Your task to perform on an android device: stop showing notifications on the lock screen Image 0: 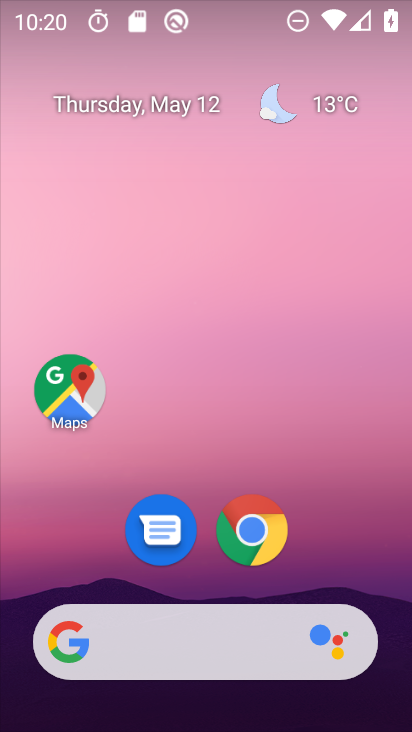
Step 0: drag from (315, 552) to (371, 32)
Your task to perform on an android device: stop showing notifications on the lock screen Image 1: 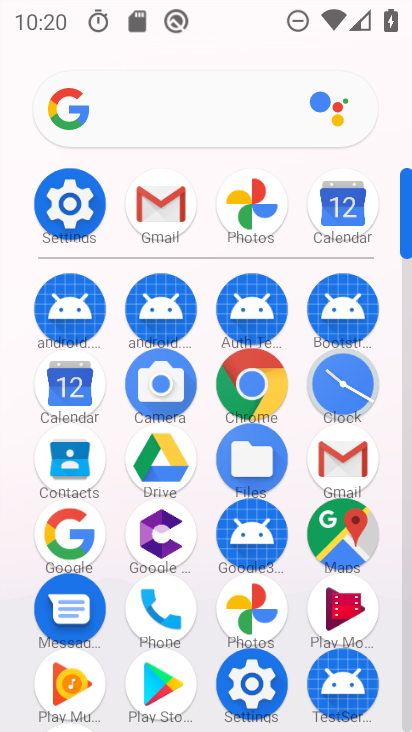
Step 1: click (70, 186)
Your task to perform on an android device: stop showing notifications on the lock screen Image 2: 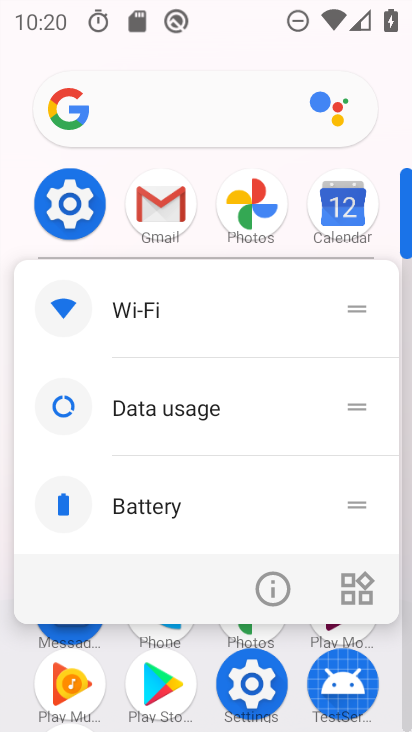
Step 2: click (70, 186)
Your task to perform on an android device: stop showing notifications on the lock screen Image 3: 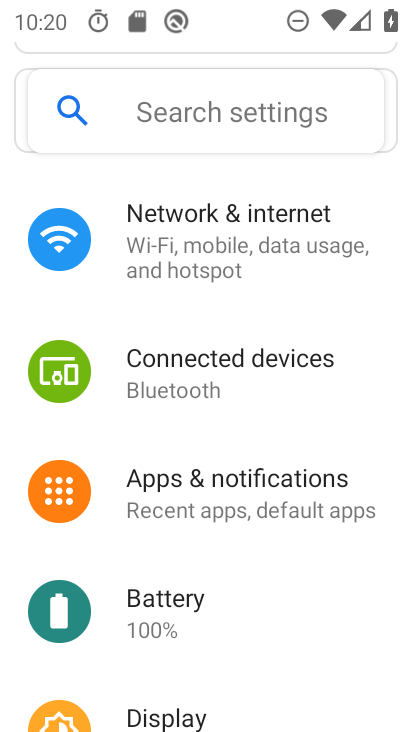
Step 3: click (154, 489)
Your task to perform on an android device: stop showing notifications on the lock screen Image 4: 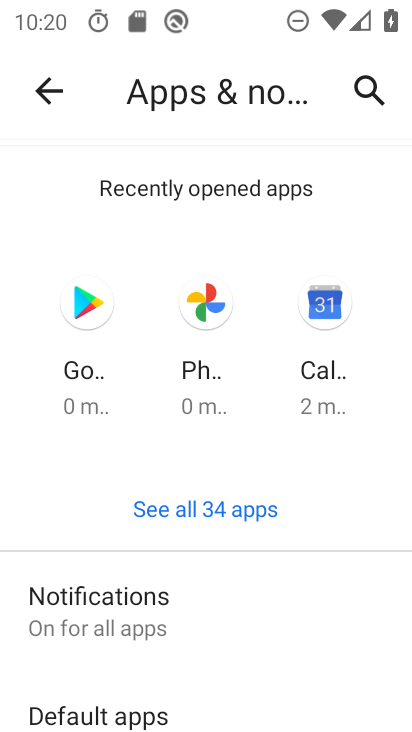
Step 4: click (166, 611)
Your task to perform on an android device: stop showing notifications on the lock screen Image 5: 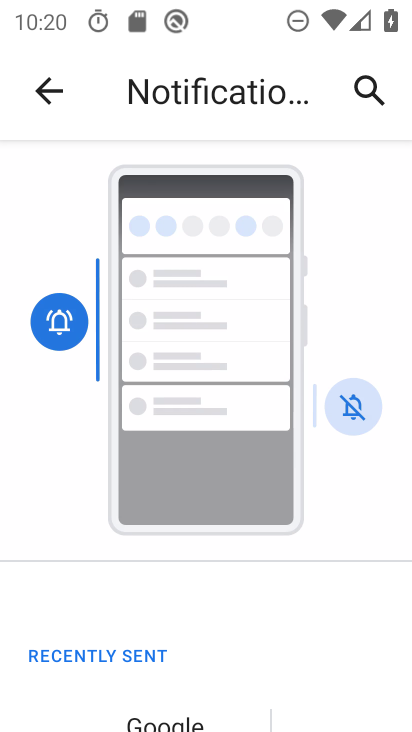
Step 5: drag from (305, 669) to (366, 231)
Your task to perform on an android device: stop showing notifications on the lock screen Image 6: 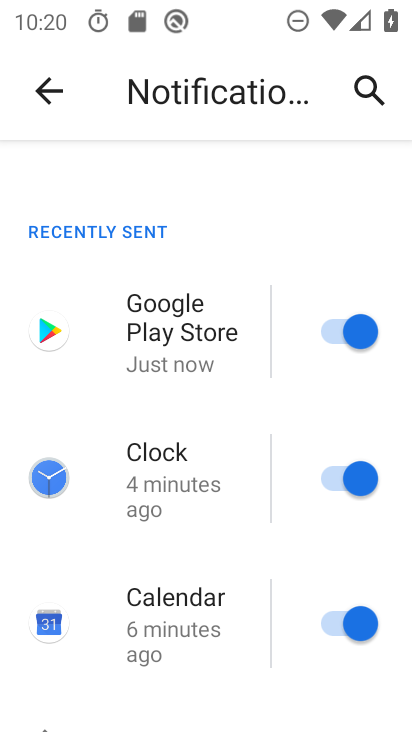
Step 6: drag from (248, 591) to (296, 172)
Your task to perform on an android device: stop showing notifications on the lock screen Image 7: 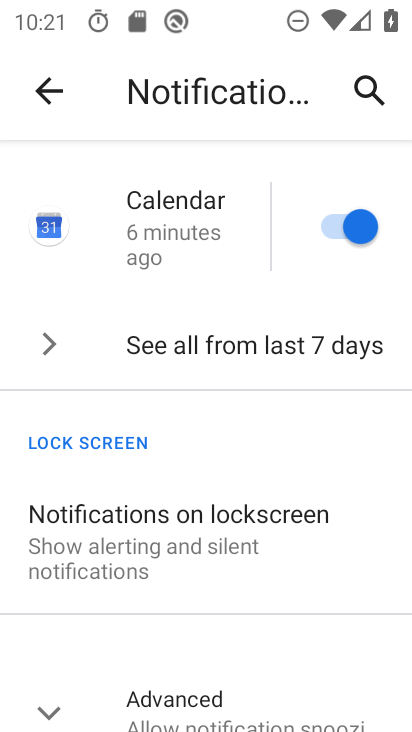
Step 7: click (218, 520)
Your task to perform on an android device: stop showing notifications on the lock screen Image 8: 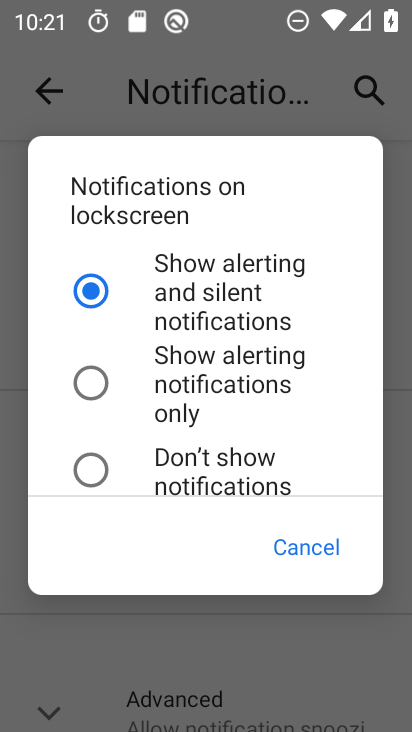
Step 8: click (262, 475)
Your task to perform on an android device: stop showing notifications on the lock screen Image 9: 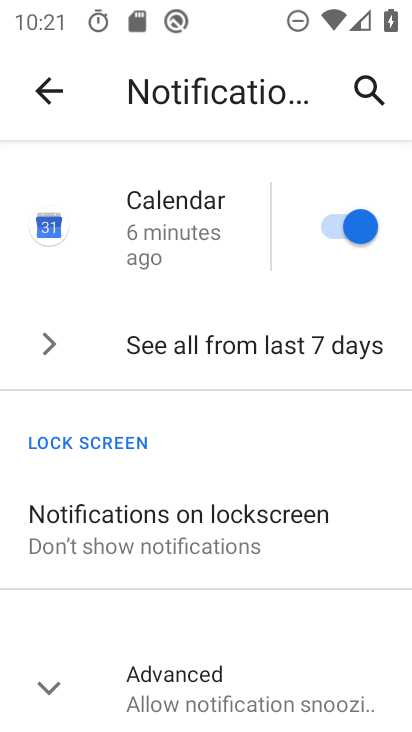
Step 9: task complete